Your task to perform on an android device: turn off notifications settings in the gmail app Image 0: 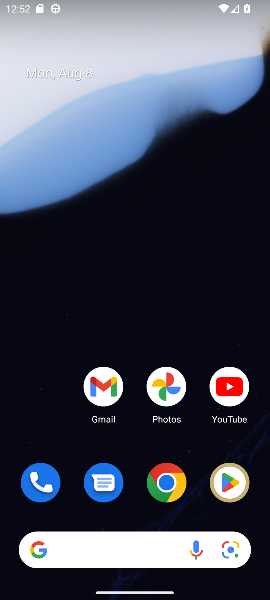
Step 0: click (93, 383)
Your task to perform on an android device: turn off notifications settings in the gmail app Image 1: 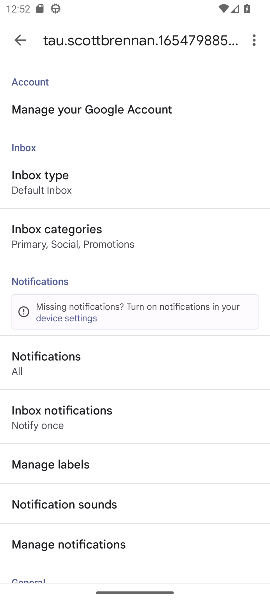
Step 1: click (90, 532)
Your task to perform on an android device: turn off notifications settings in the gmail app Image 2: 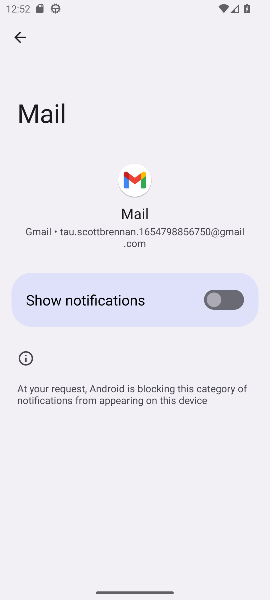
Step 2: task complete